Your task to perform on an android device: Look up the best rated book on Goodreads Image 0: 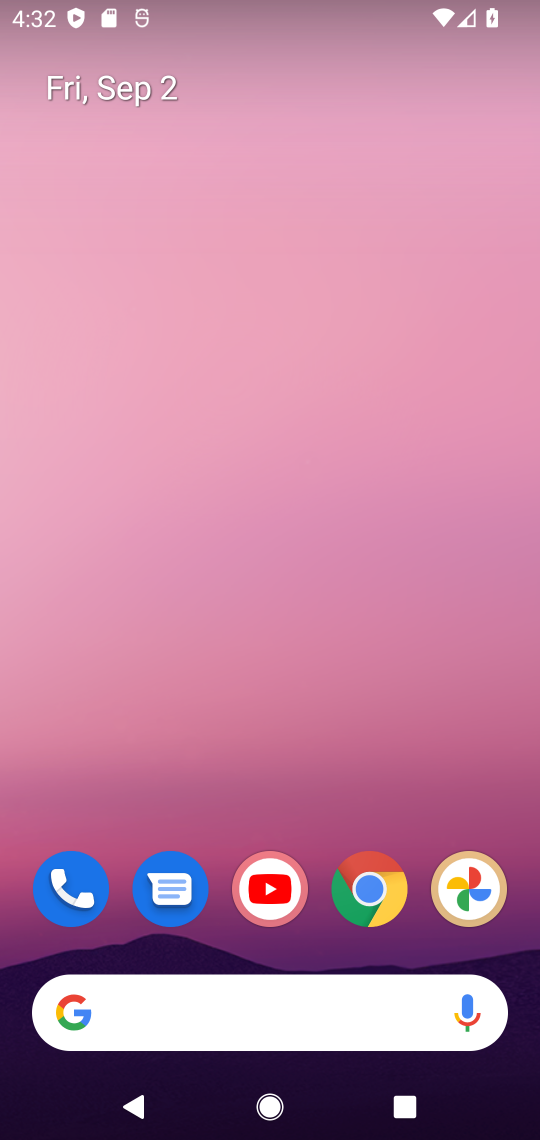
Step 0: click (346, 865)
Your task to perform on an android device: Look up the best rated book on Goodreads Image 1: 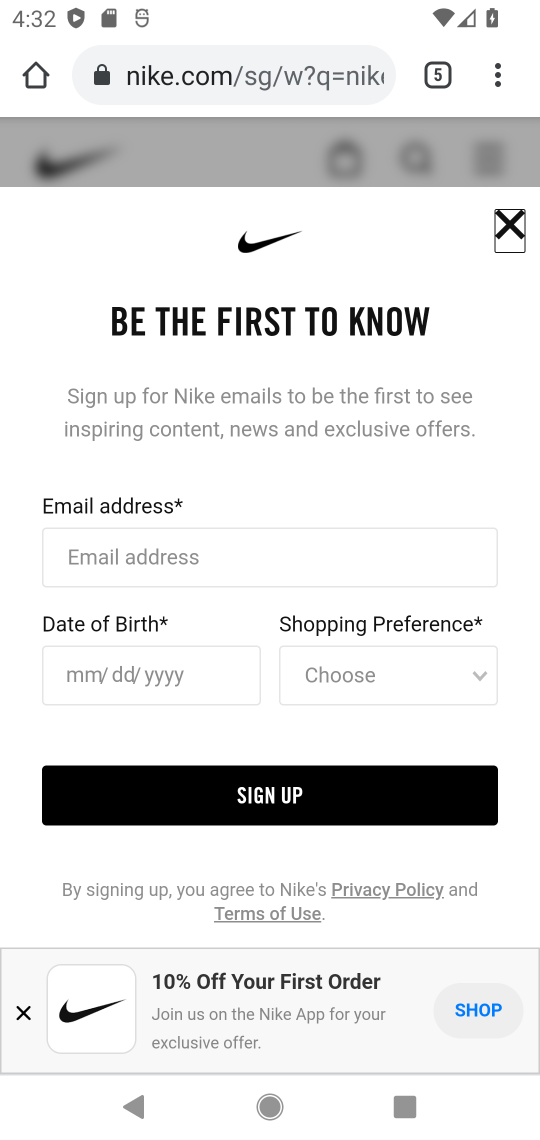
Step 1: click (443, 72)
Your task to perform on an android device: Look up the best rated book on Goodreads Image 2: 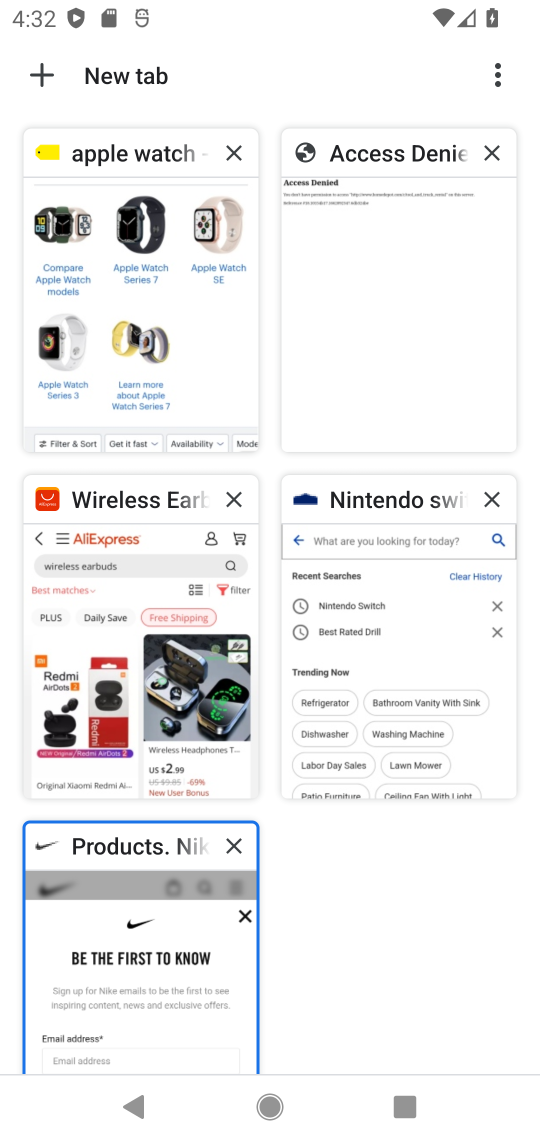
Step 2: click (43, 66)
Your task to perform on an android device: Look up the best rated book on Goodreads Image 3: 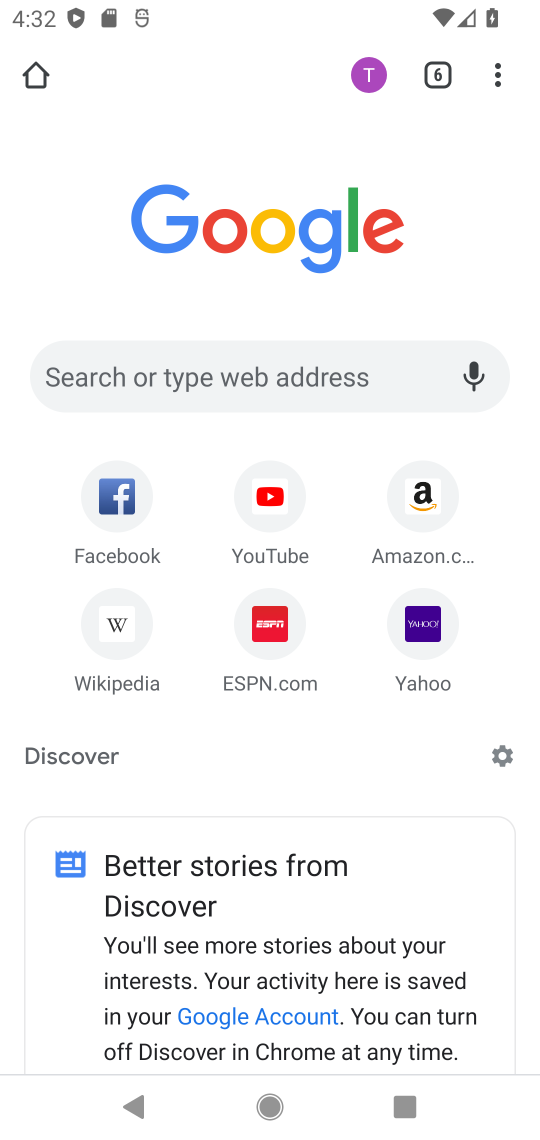
Step 3: type "Goodreads"
Your task to perform on an android device: Look up the best rated book on Goodreads Image 4: 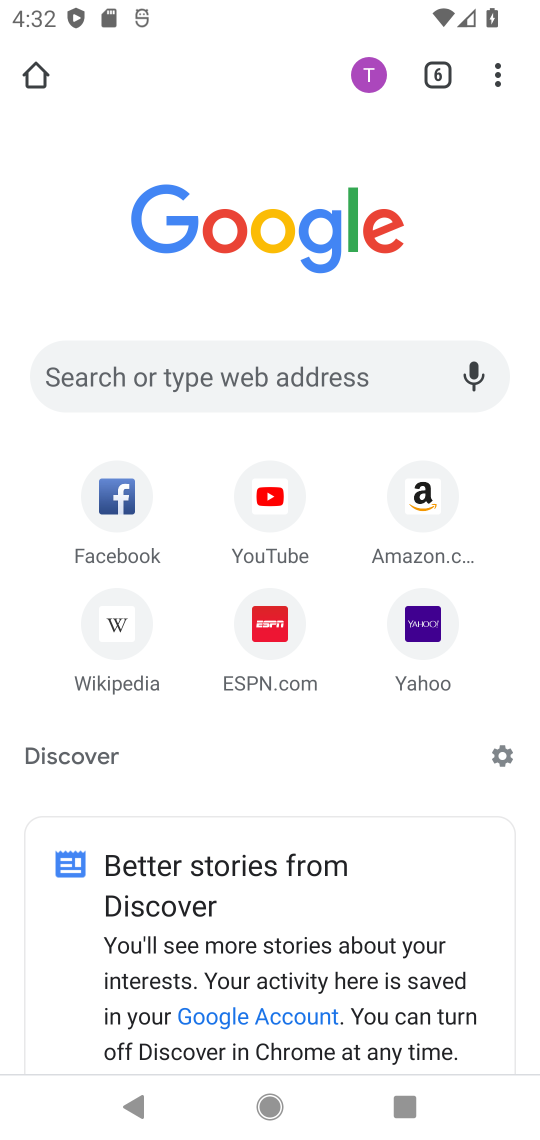
Step 4: type ""
Your task to perform on an android device: Look up the best rated book on Goodreads Image 5: 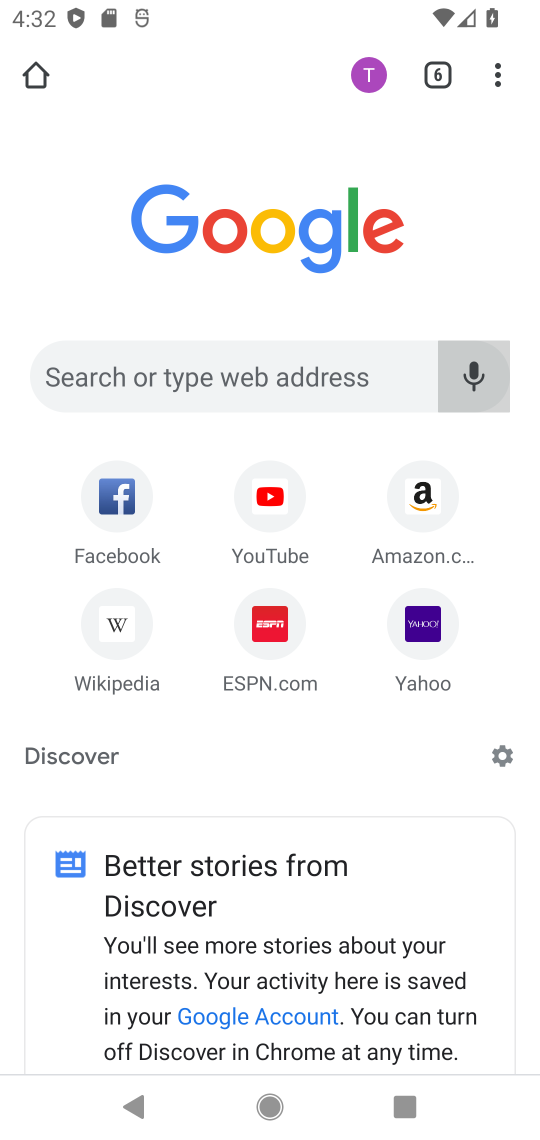
Step 5: click (219, 370)
Your task to perform on an android device: Look up the best rated book on Goodreads Image 6: 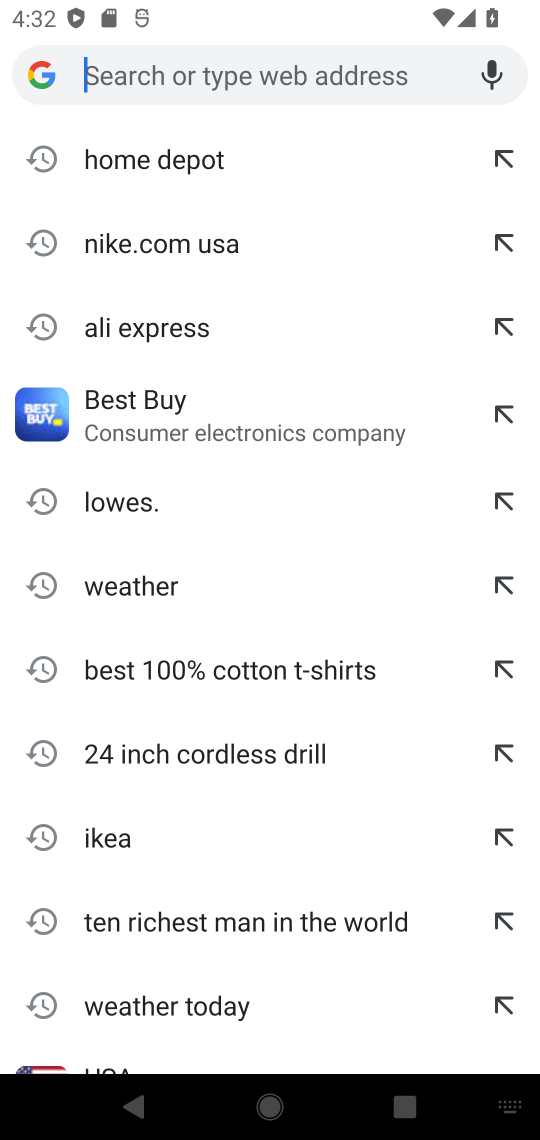
Step 6: type "Goodreads"
Your task to perform on an android device: Look up the best rated book on Goodreads Image 7: 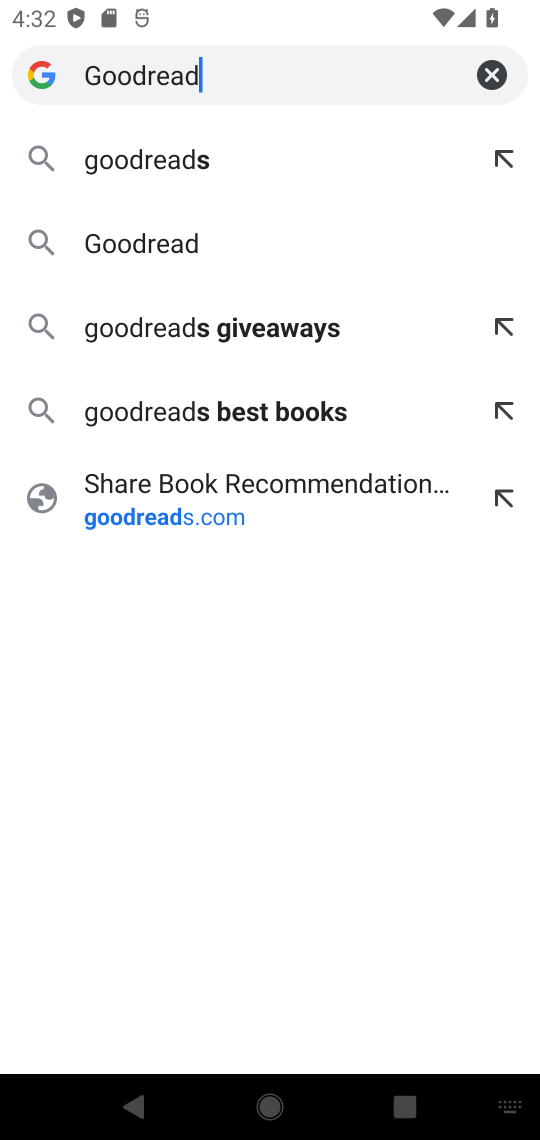
Step 7: type ""
Your task to perform on an android device: Look up the best rated book on Goodreads Image 8: 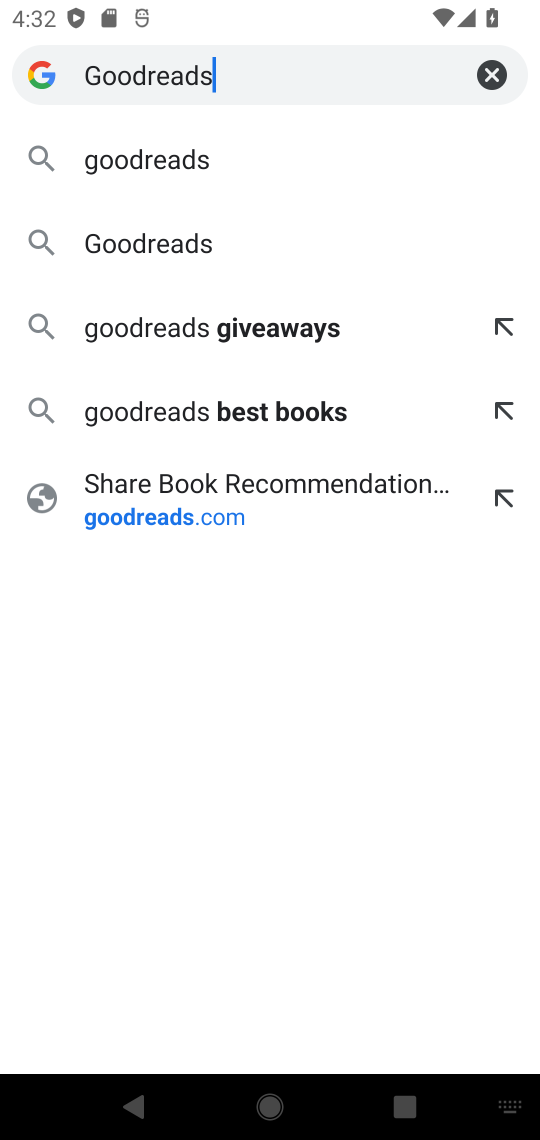
Step 8: click (183, 151)
Your task to perform on an android device: Look up the best rated book on Goodreads Image 9: 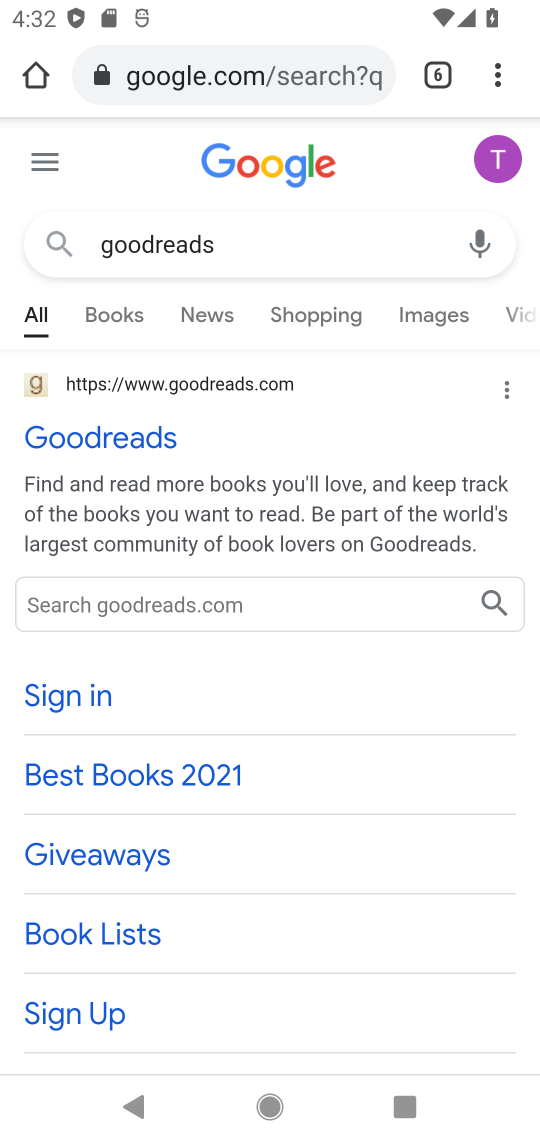
Step 9: click (125, 437)
Your task to perform on an android device: Look up the best rated book on Goodreads Image 10: 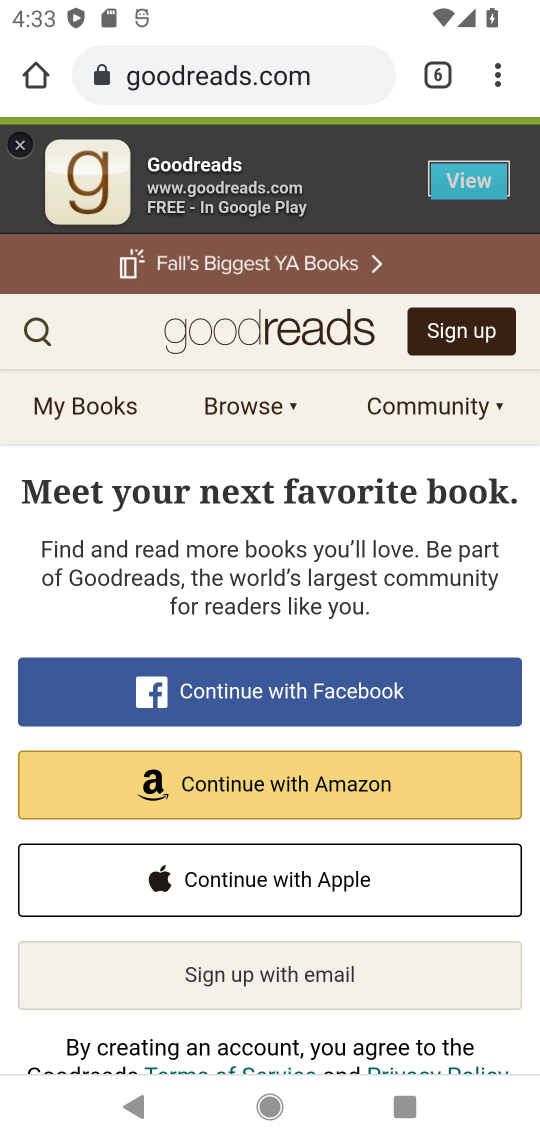
Step 10: click (41, 333)
Your task to perform on an android device: Look up the best rated book on Goodreads Image 11: 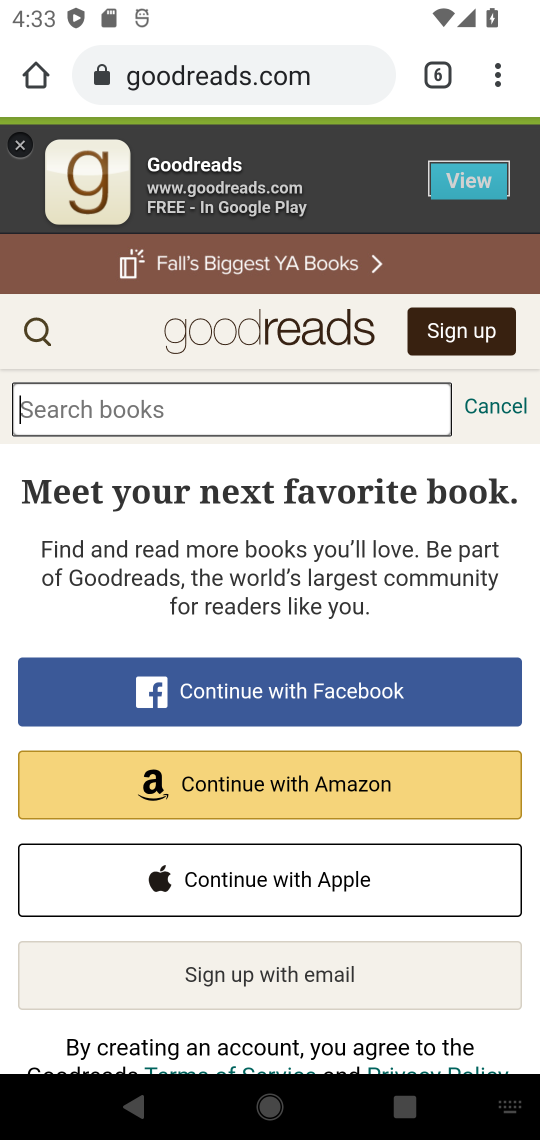
Step 11: click (325, 387)
Your task to perform on an android device: Look up the best rated book on Goodreads Image 12: 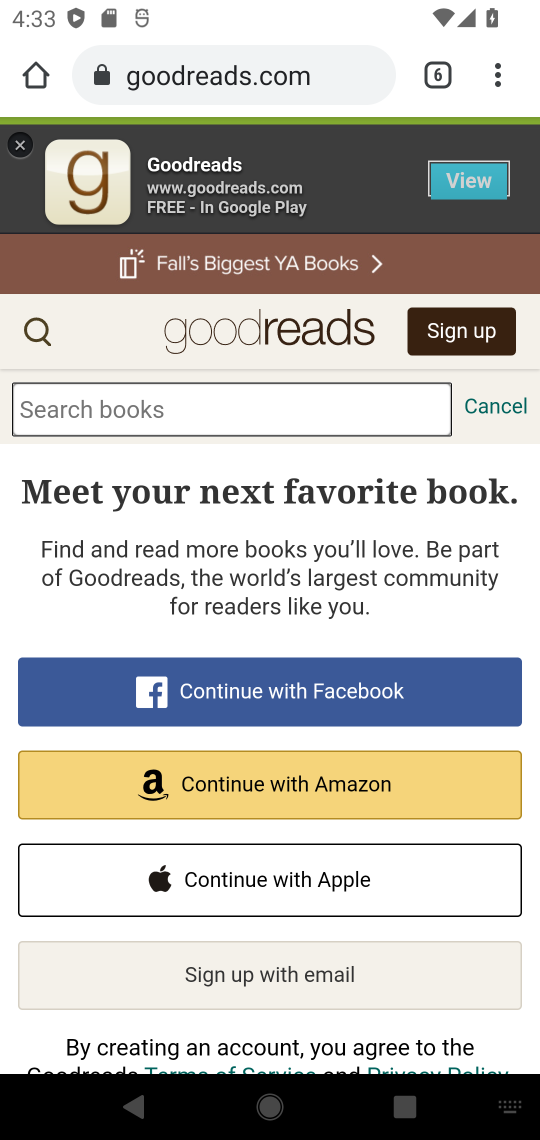
Step 12: click (262, 408)
Your task to perform on an android device: Look up the best rated book on Goodreads Image 13: 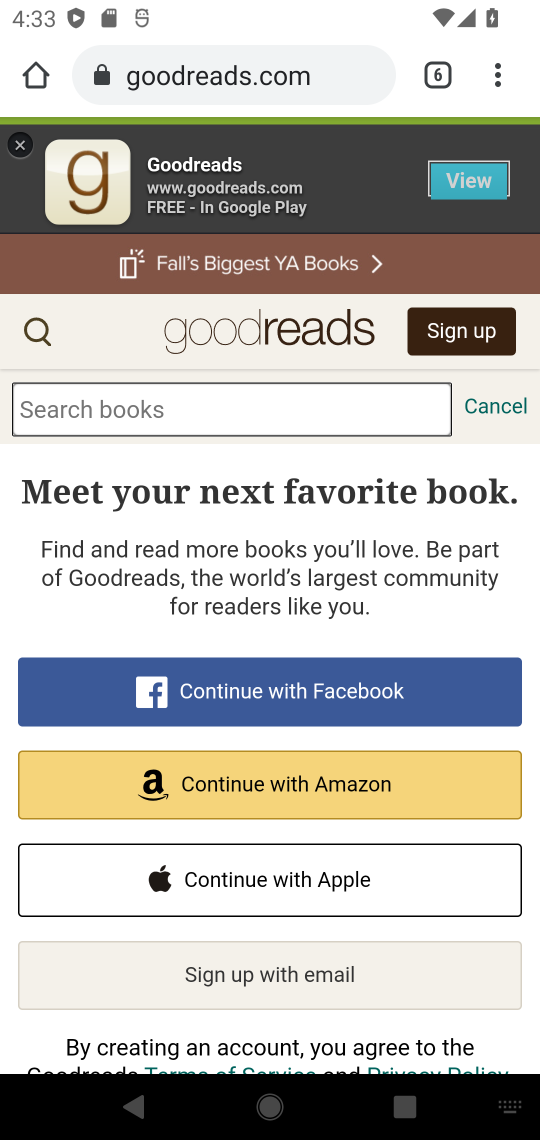
Step 13: click (184, 421)
Your task to perform on an android device: Look up the best rated book on Goodreads Image 14: 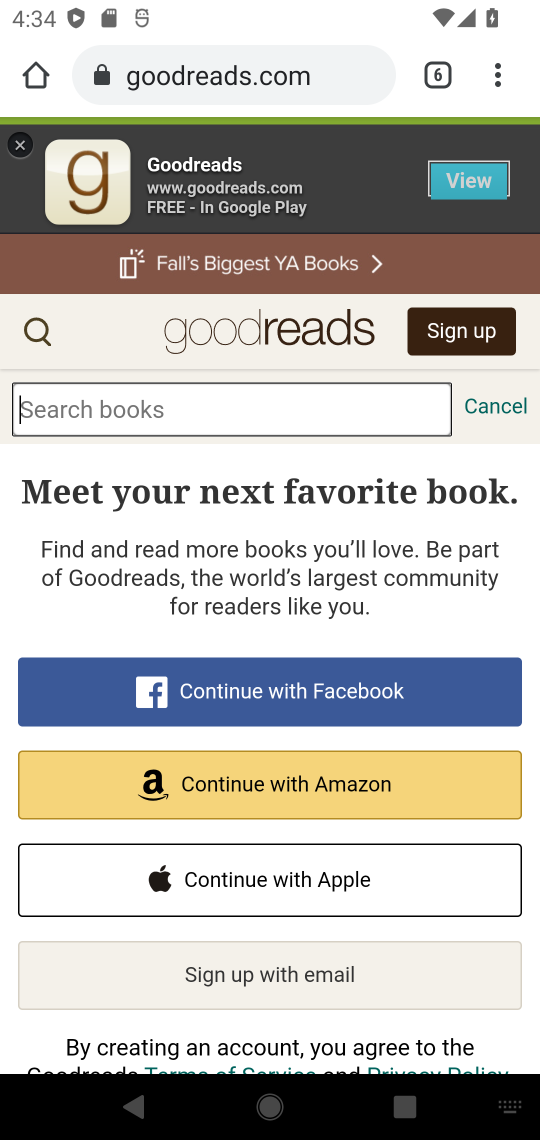
Step 14: click (194, 404)
Your task to perform on an android device: Look up the best rated book on Goodreads Image 15: 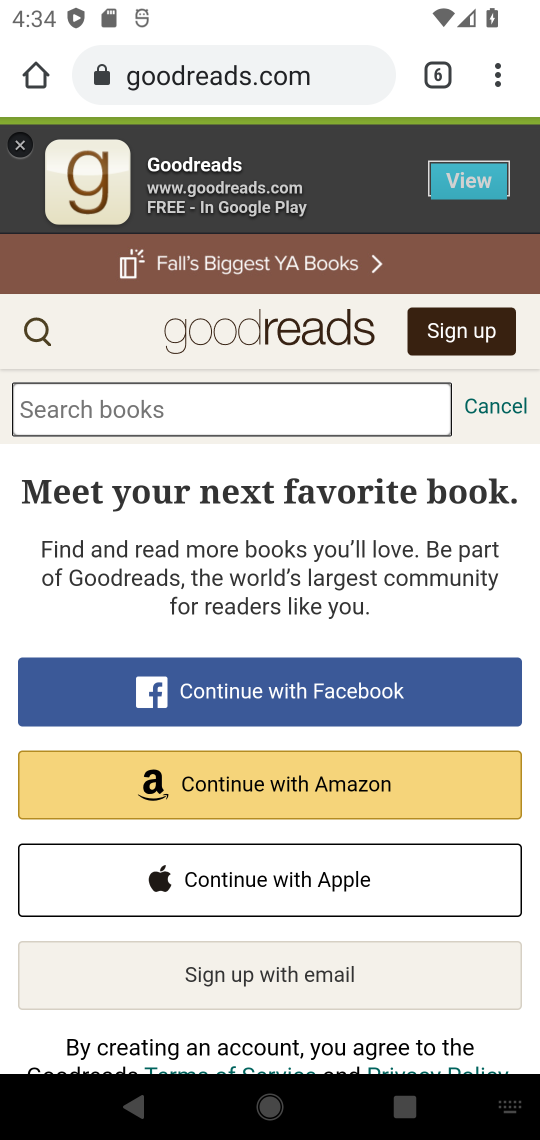
Step 15: type "best rated book "
Your task to perform on an android device: Look up the best rated book on Goodreads Image 16: 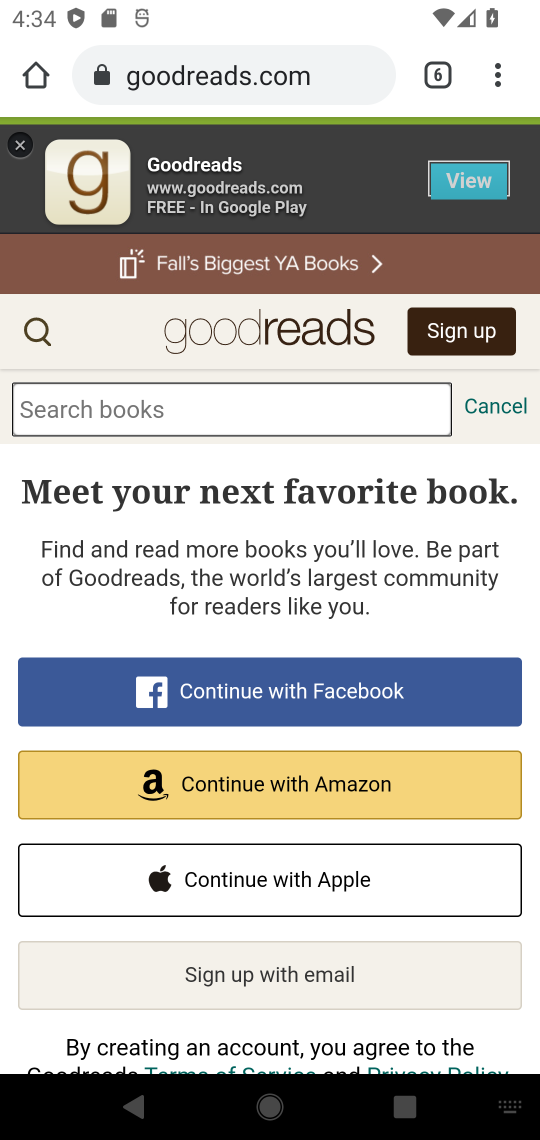
Step 16: type ""
Your task to perform on an android device: Look up the best rated book on Goodreads Image 17: 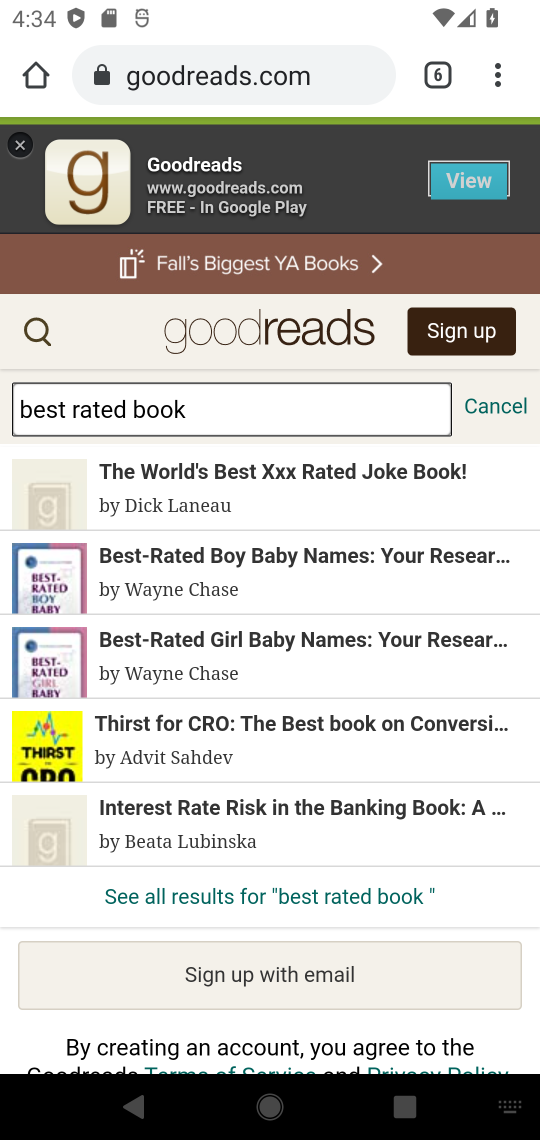
Step 17: task complete